Your task to perform on an android device: Is it going to rain tomorrow? Image 0: 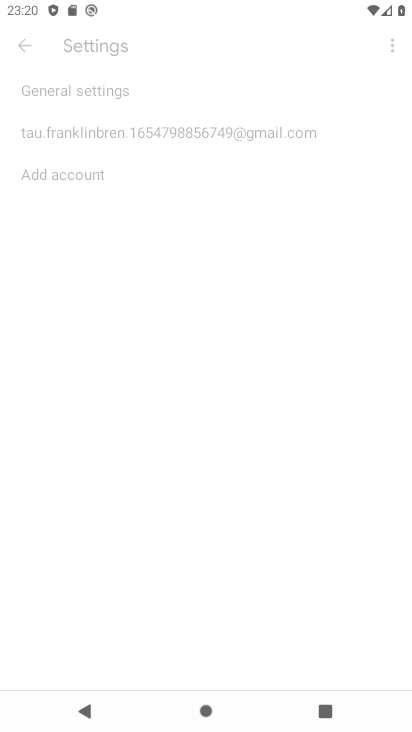
Step 0: click (163, 653)
Your task to perform on an android device: Is it going to rain tomorrow? Image 1: 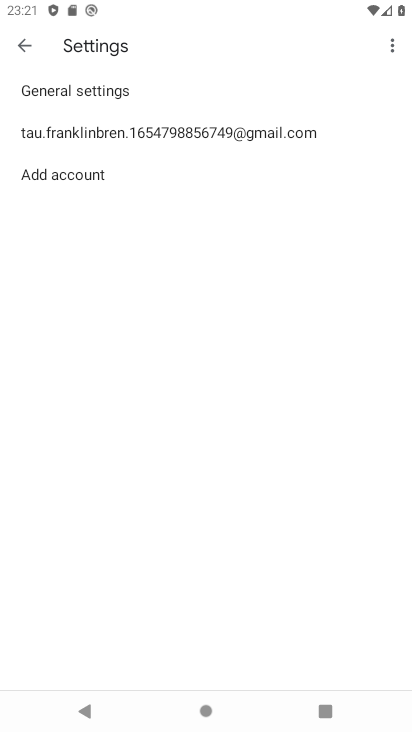
Step 1: press home button
Your task to perform on an android device: Is it going to rain tomorrow? Image 2: 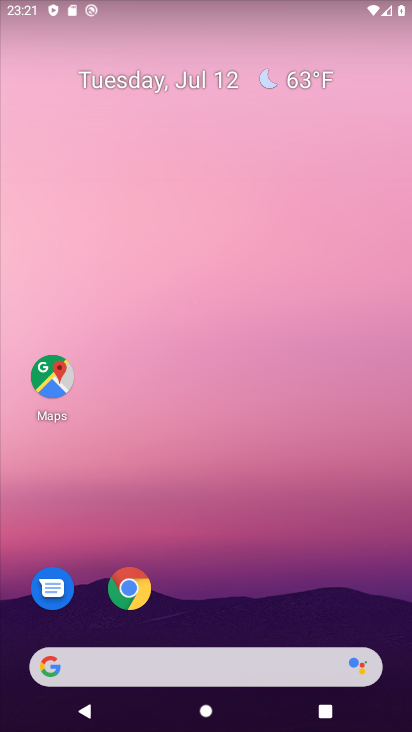
Step 2: type "Is it going to rain tomorrow?"
Your task to perform on an android device: Is it going to rain tomorrow? Image 3: 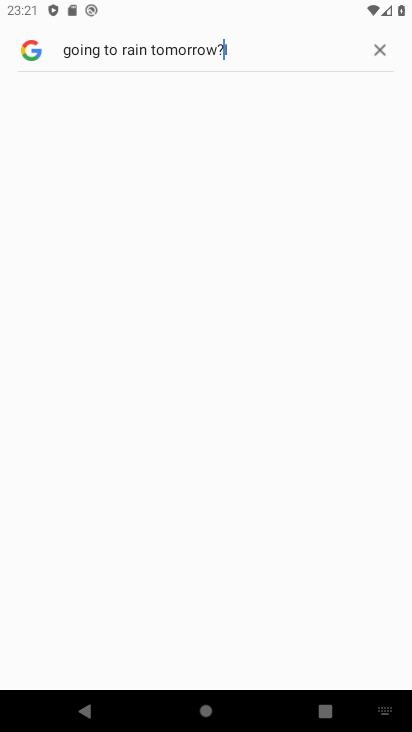
Step 3: type ""
Your task to perform on an android device: Is it going to rain tomorrow? Image 4: 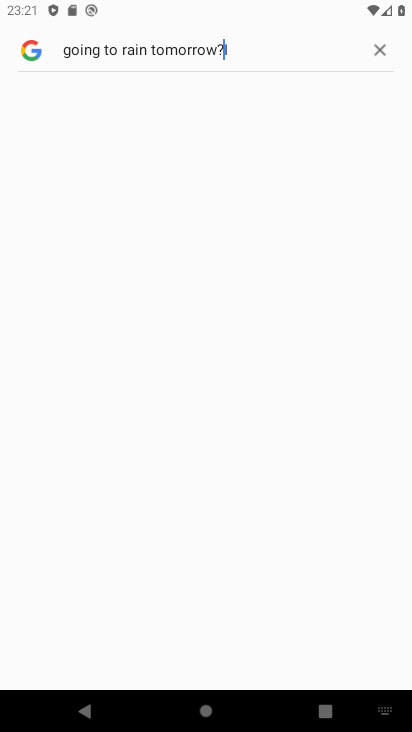
Step 4: click (134, 661)
Your task to perform on an android device: Is it going to rain tomorrow? Image 5: 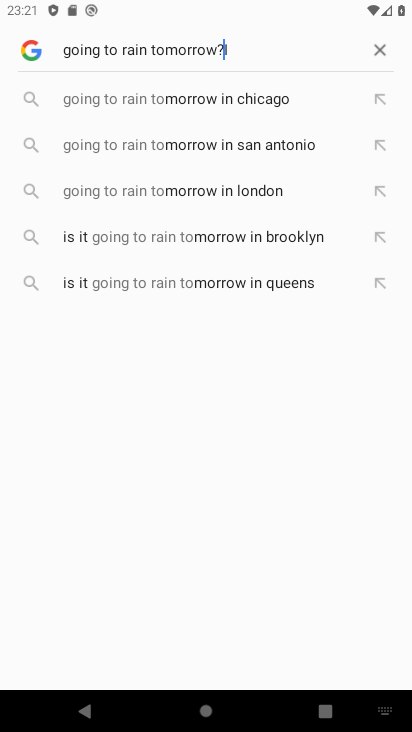
Step 5: task complete